Your task to perform on an android device: Open Youtube and go to "Your channel" Image 0: 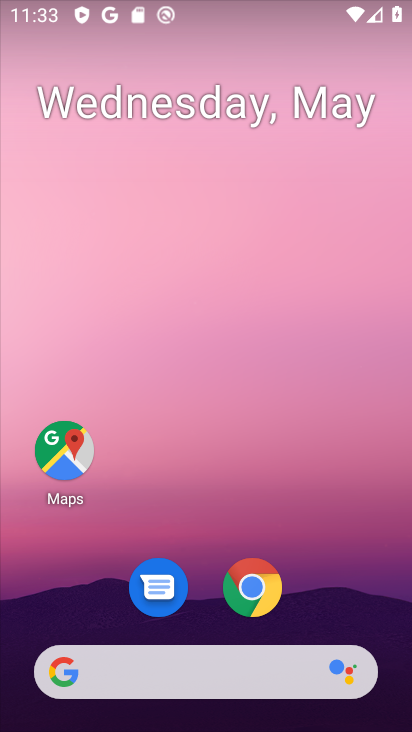
Step 0: drag from (340, 561) to (304, 6)
Your task to perform on an android device: Open Youtube and go to "Your channel" Image 1: 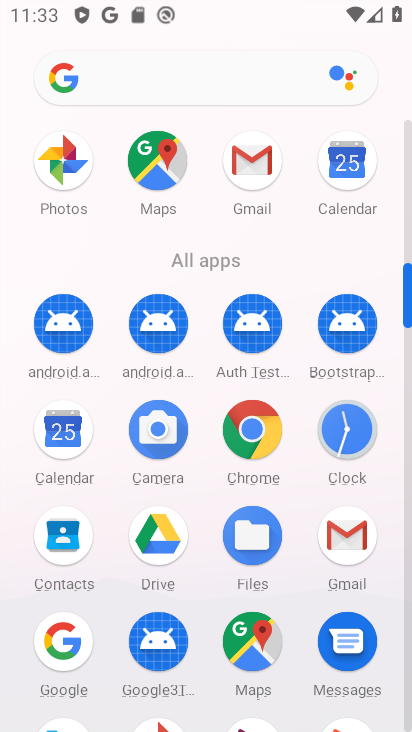
Step 1: drag from (193, 263) to (205, 3)
Your task to perform on an android device: Open Youtube and go to "Your channel" Image 2: 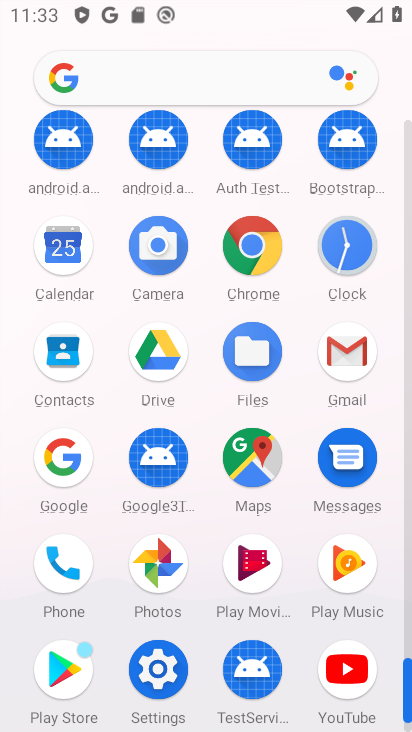
Step 2: click (346, 676)
Your task to perform on an android device: Open Youtube and go to "Your channel" Image 3: 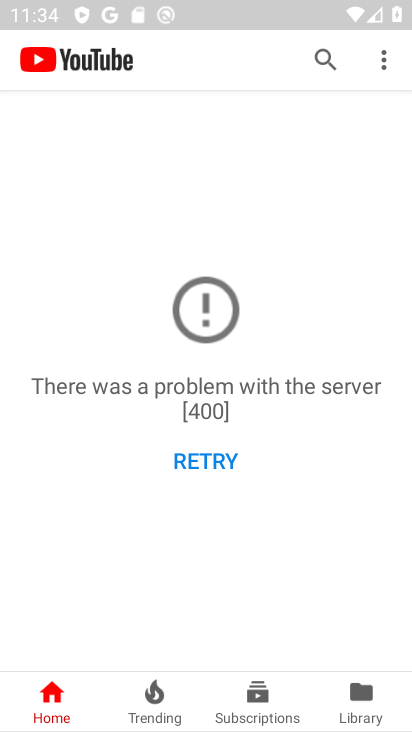
Step 3: click (369, 690)
Your task to perform on an android device: Open Youtube and go to "Your channel" Image 4: 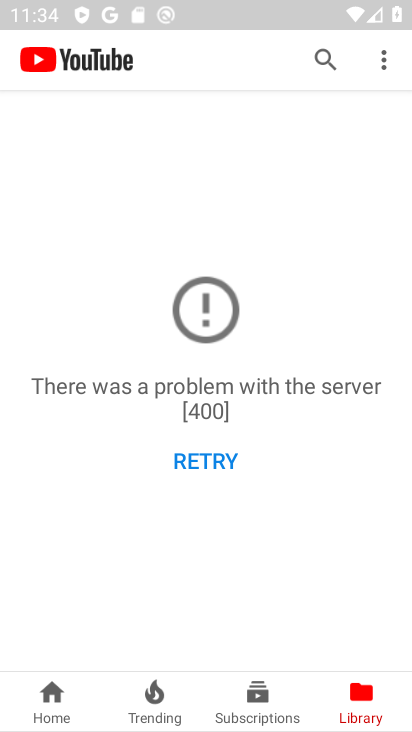
Step 4: click (214, 455)
Your task to perform on an android device: Open Youtube and go to "Your channel" Image 5: 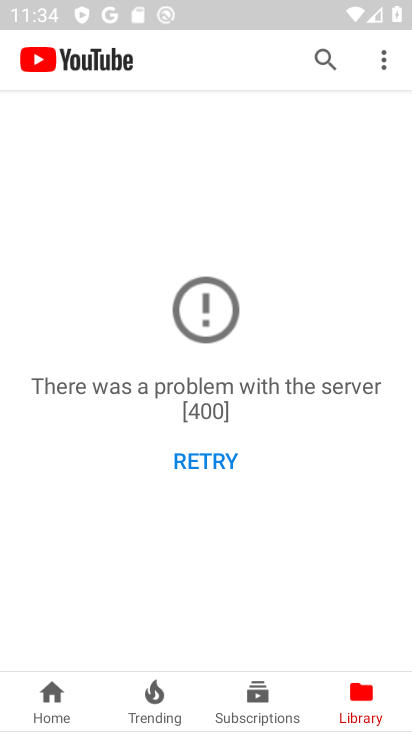
Step 5: task complete